Your task to perform on an android device: Clear the shopping cart on amazon. Search for "logitech g pro" on amazon, select the first entry, add it to the cart, then select checkout. Image 0: 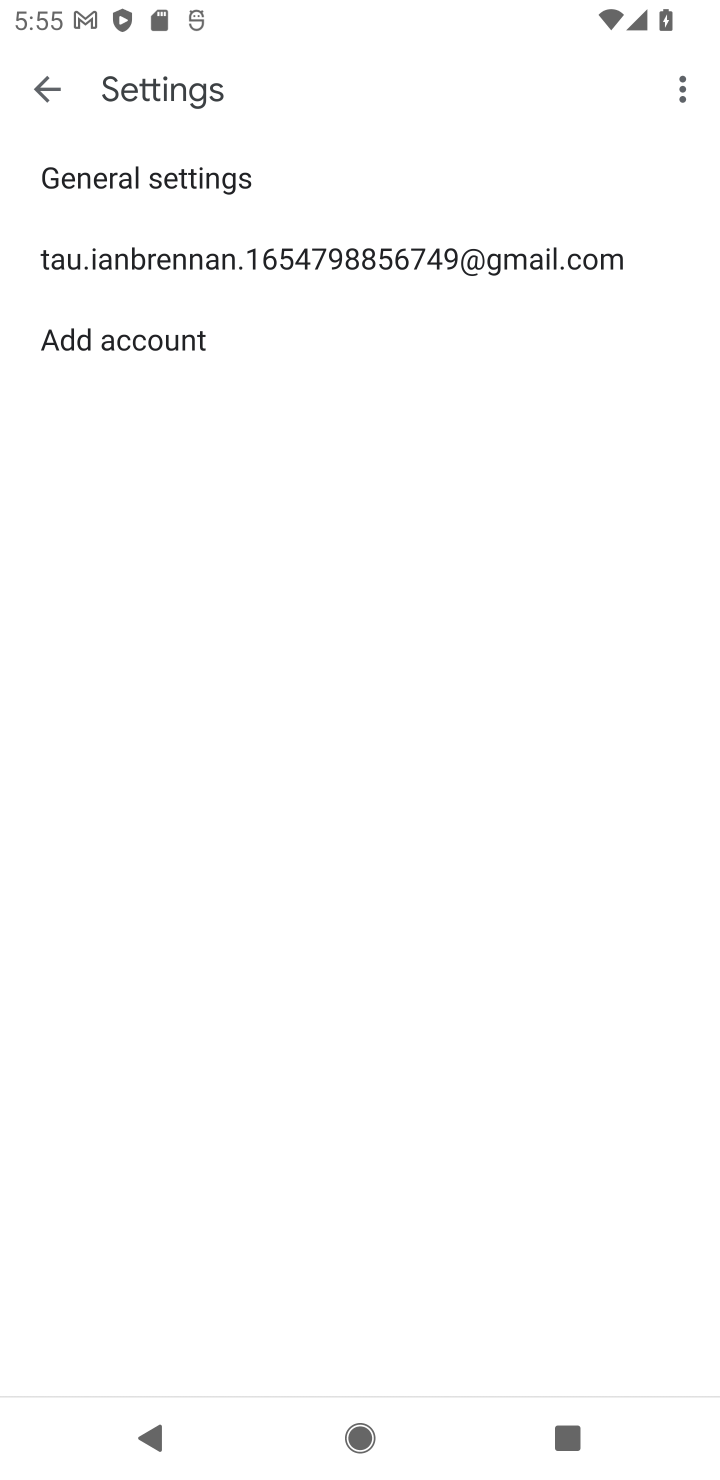
Step 0: press back button
Your task to perform on an android device: Clear the shopping cart on amazon. Search for "logitech g pro" on amazon, select the first entry, add it to the cart, then select checkout. Image 1: 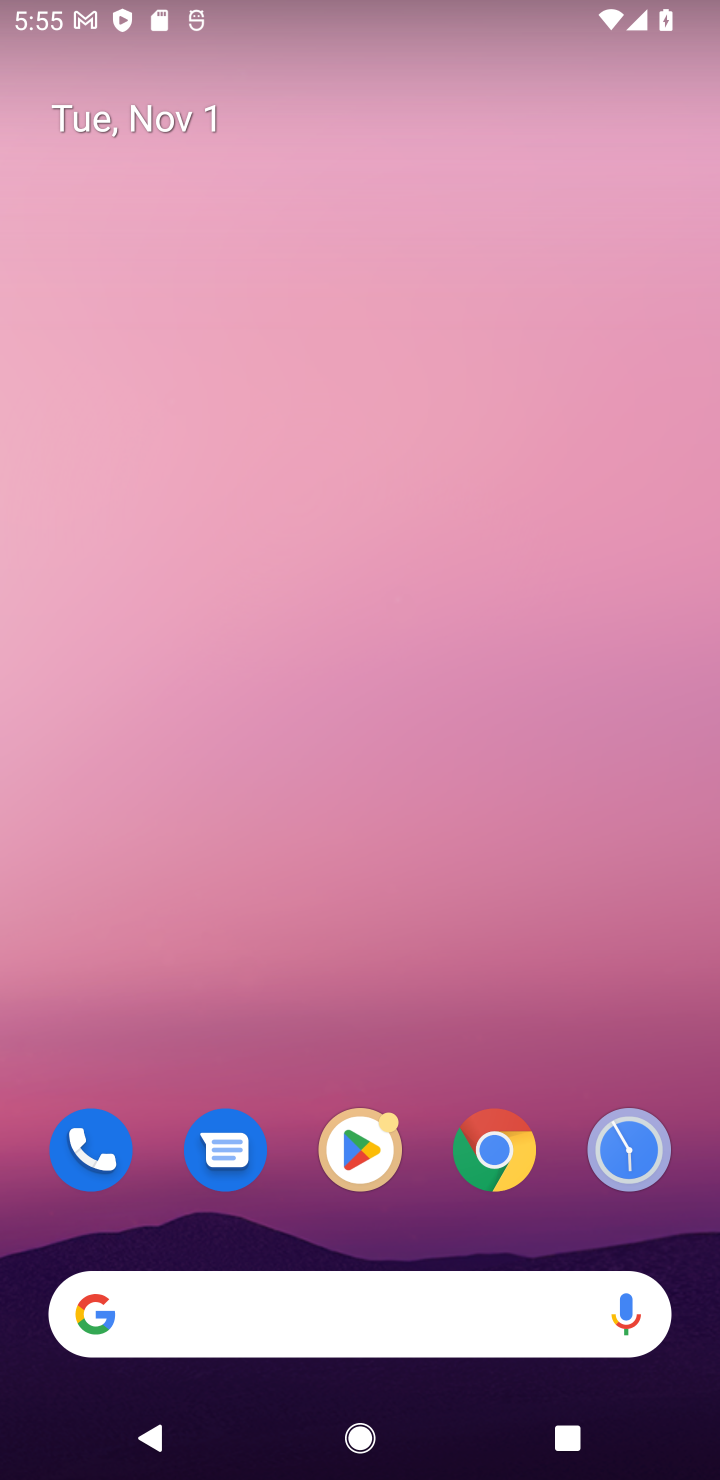
Step 1: press home button
Your task to perform on an android device: Clear the shopping cart on amazon. Search for "logitech g pro" on amazon, select the first entry, add it to the cart, then select checkout. Image 2: 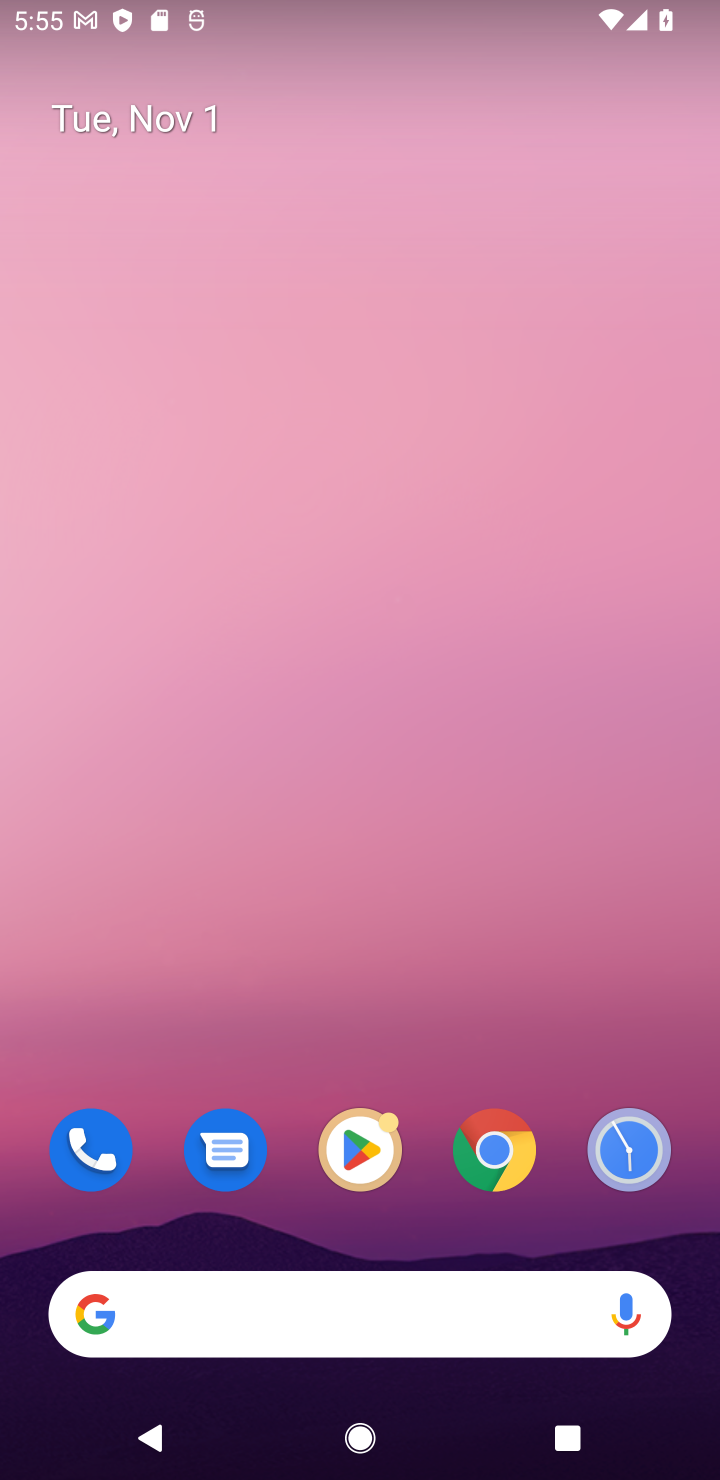
Step 2: click (487, 1154)
Your task to perform on an android device: Clear the shopping cart on amazon. Search for "logitech g pro" on amazon, select the first entry, add it to the cart, then select checkout. Image 3: 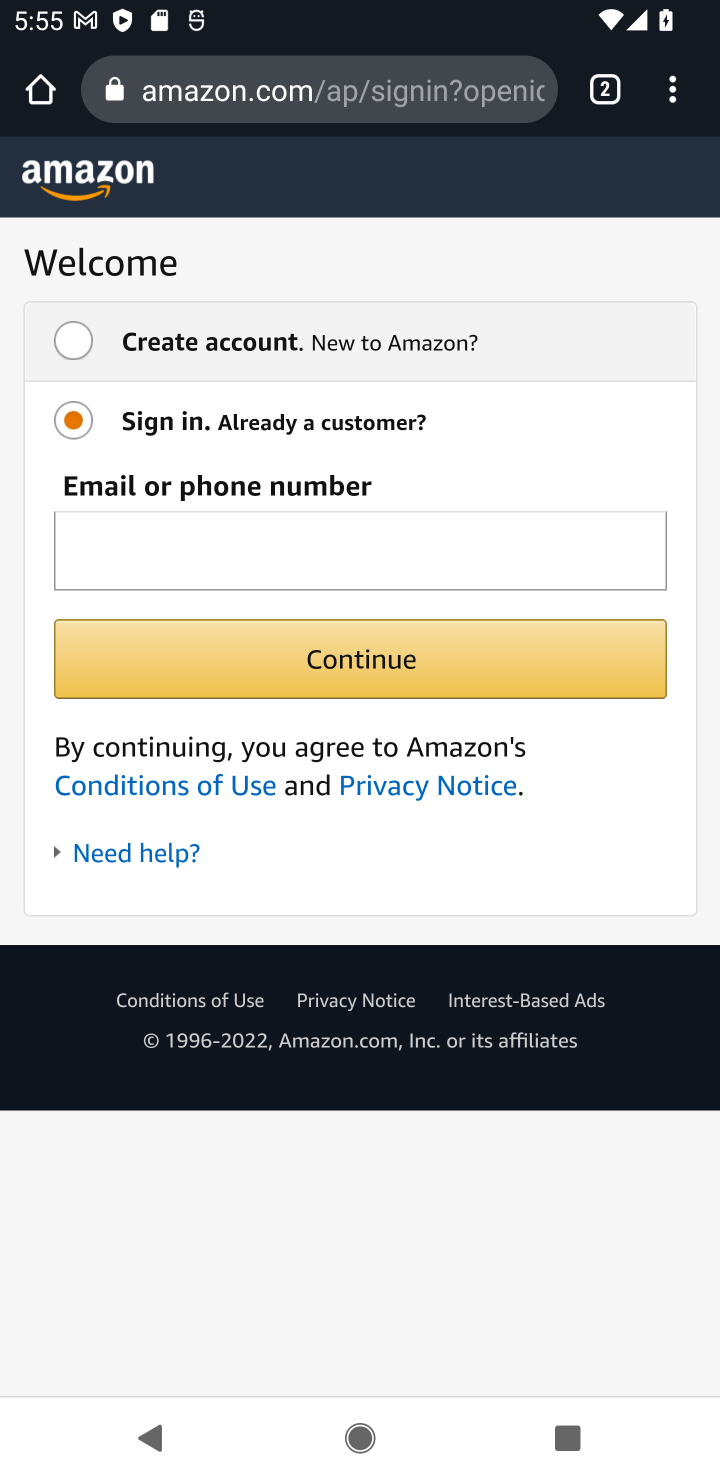
Step 3: task complete